Your task to perform on an android device: turn off picture-in-picture Image 0: 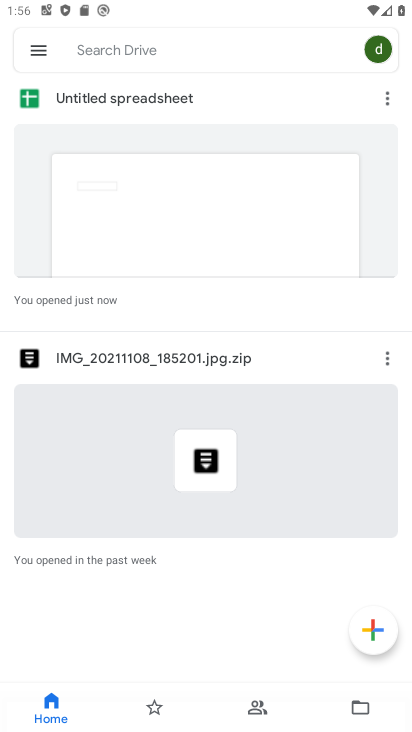
Step 0: press home button
Your task to perform on an android device: turn off picture-in-picture Image 1: 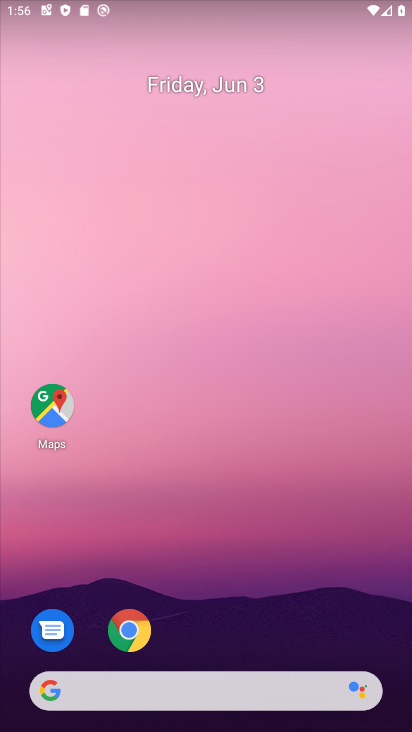
Step 1: drag from (234, 728) to (248, 100)
Your task to perform on an android device: turn off picture-in-picture Image 2: 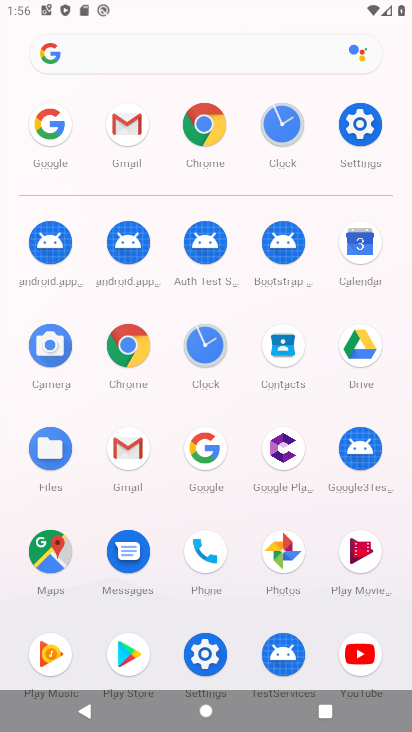
Step 2: click (364, 128)
Your task to perform on an android device: turn off picture-in-picture Image 3: 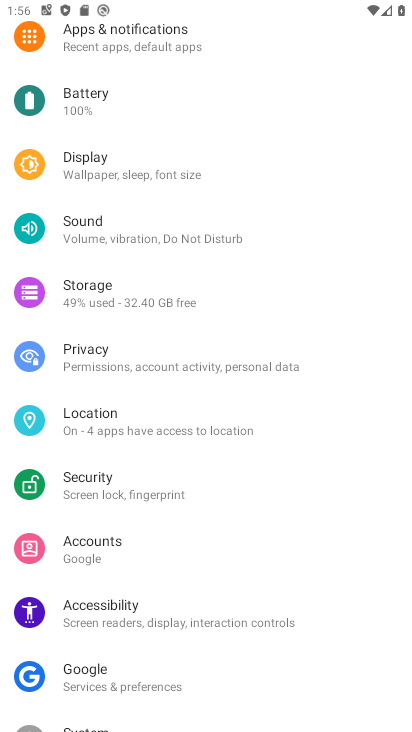
Step 3: drag from (152, 119) to (175, 412)
Your task to perform on an android device: turn off picture-in-picture Image 4: 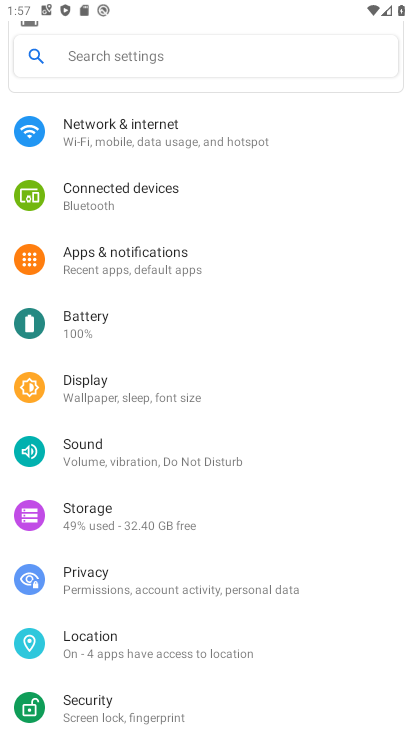
Step 4: click (145, 255)
Your task to perform on an android device: turn off picture-in-picture Image 5: 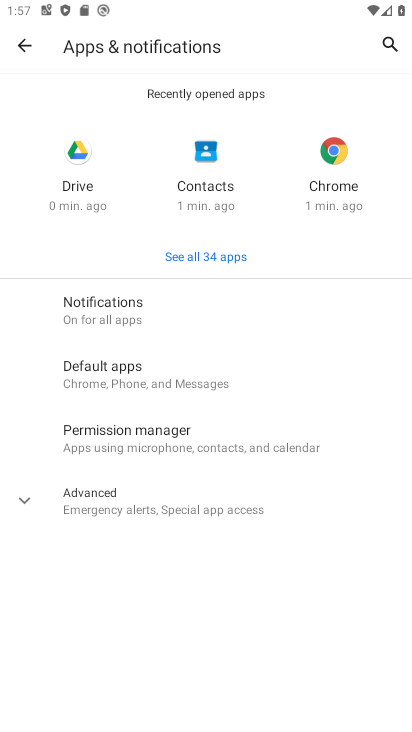
Step 5: click (150, 502)
Your task to perform on an android device: turn off picture-in-picture Image 6: 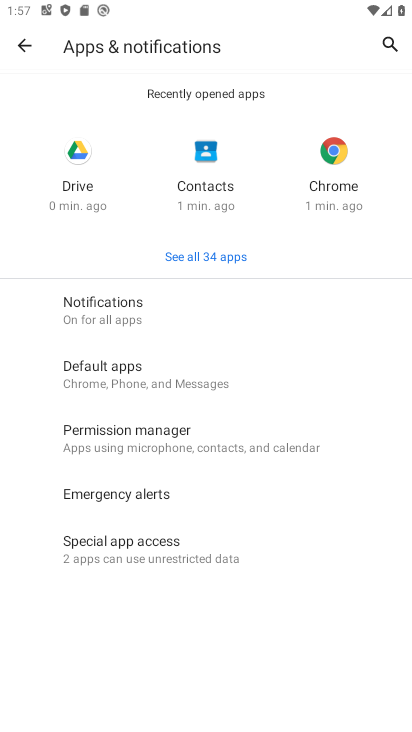
Step 6: click (138, 552)
Your task to perform on an android device: turn off picture-in-picture Image 7: 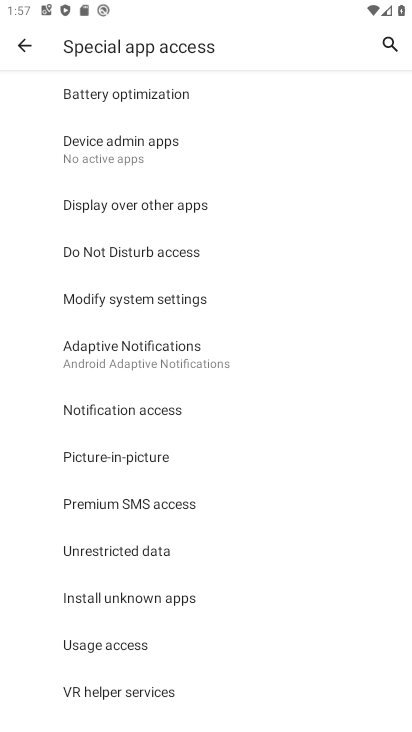
Step 7: click (127, 455)
Your task to perform on an android device: turn off picture-in-picture Image 8: 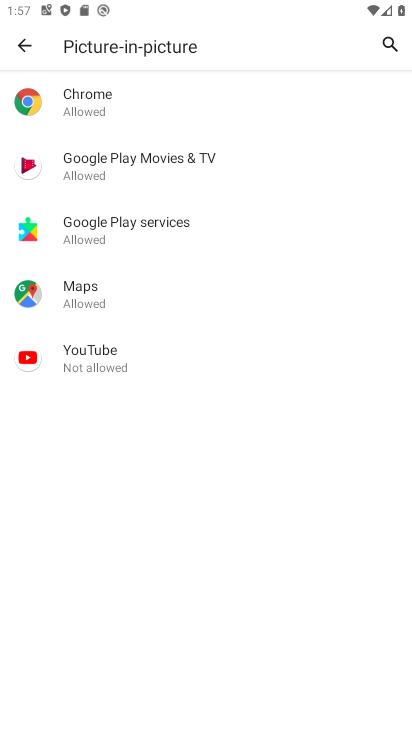
Step 8: click (80, 347)
Your task to perform on an android device: turn off picture-in-picture Image 9: 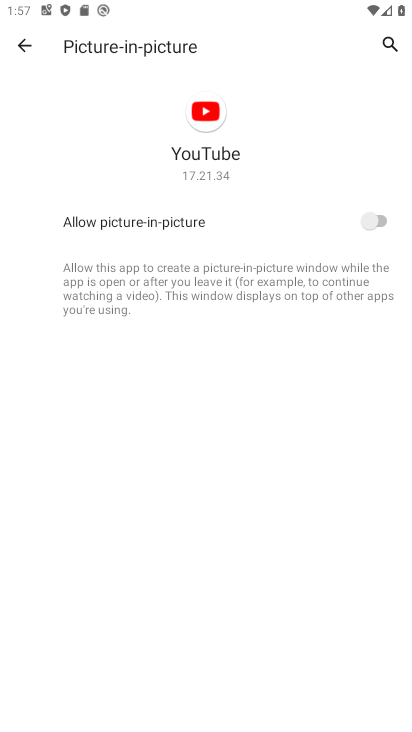
Step 9: task complete